Your task to perform on an android device: Search for seafood restaurants on Google Maps Image 0: 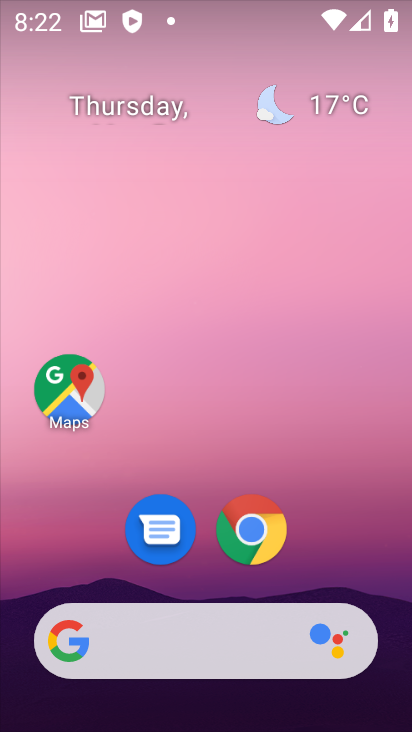
Step 0: click (68, 404)
Your task to perform on an android device: Search for seafood restaurants on Google Maps Image 1: 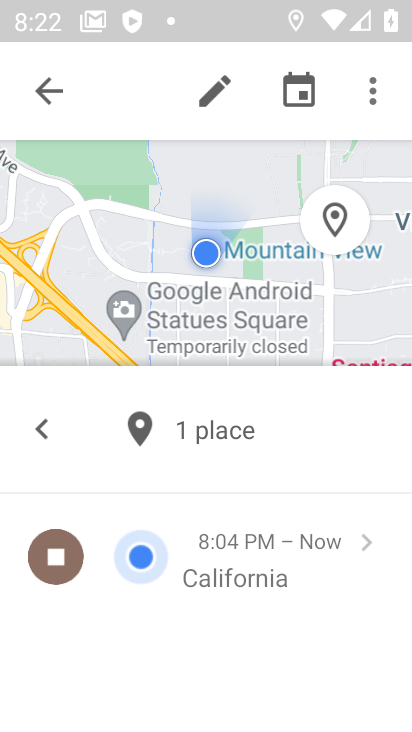
Step 1: click (50, 84)
Your task to perform on an android device: Search for seafood restaurants on Google Maps Image 2: 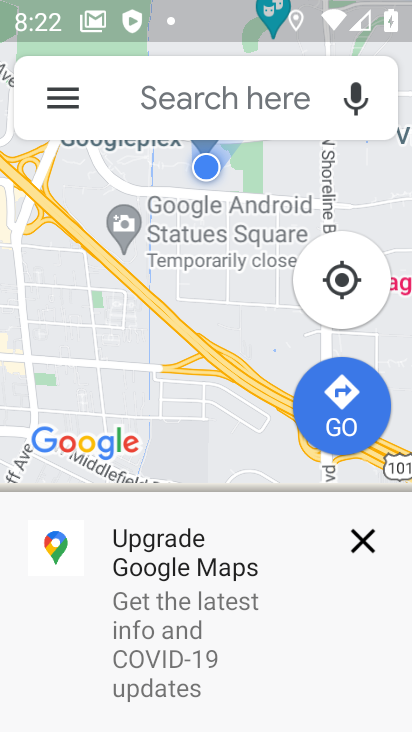
Step 2: click (192, 99)
Your task to perform on an android device: Search for seafood restaurants on Google Maps Image 3: 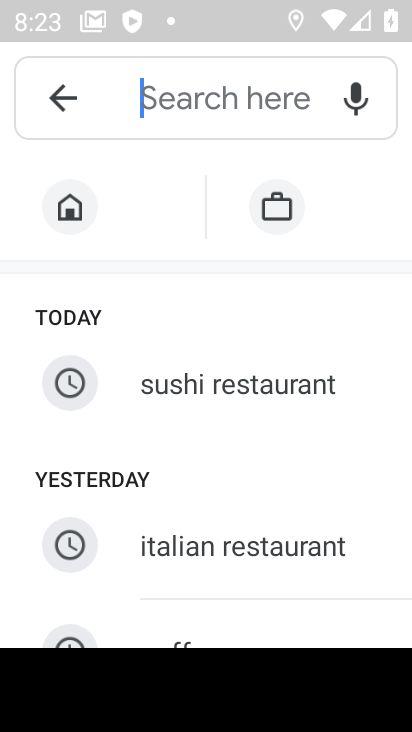
Step 3: type "eafood restaurants"
Your task to perform on an android device: Search for seafood restaurants on Google Maps Image 4: 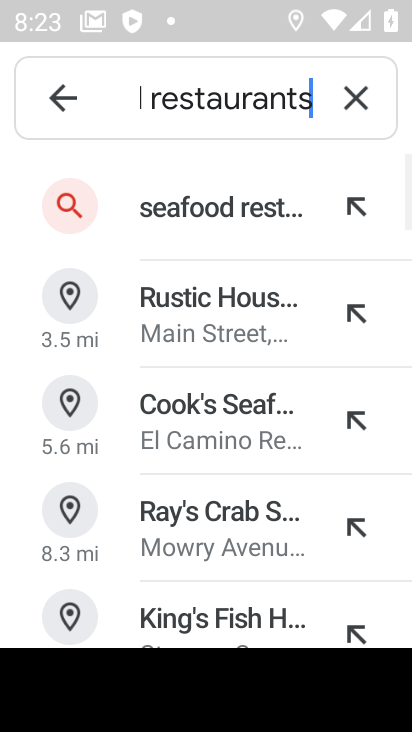
Step 4: click (186, 200)
Your task to perform on an android device: Search for seafood restaurants on Google Maps Image 5: 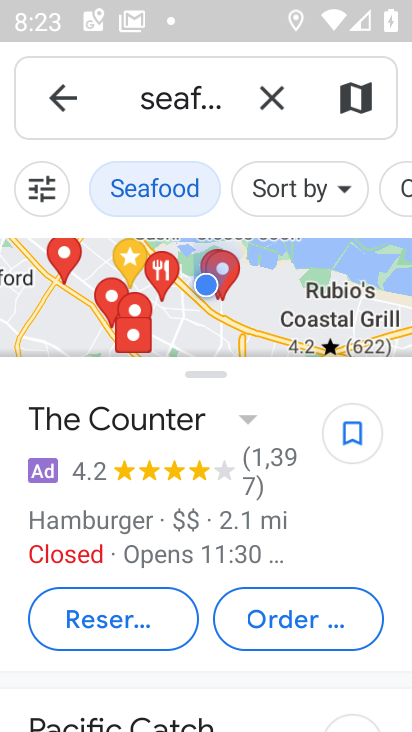
Step 5: task complete